Your task to perform on an android device: turn off translation in the chrome app Image 0: 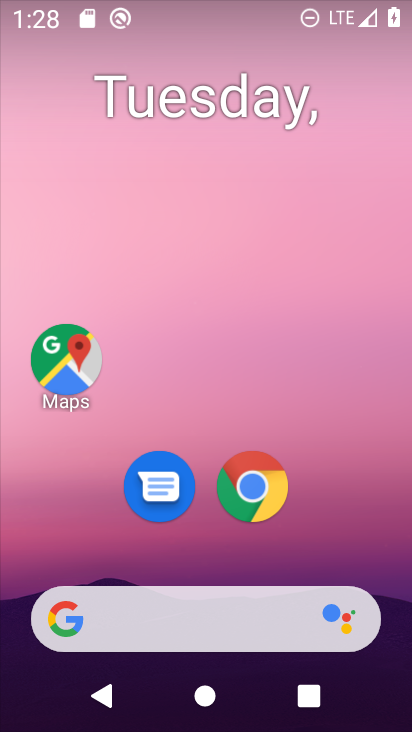
Step 0: drag from (248, 549) to (218, 188)
Your task to perform on an android device: turn off translation in the chrome app Image 1: 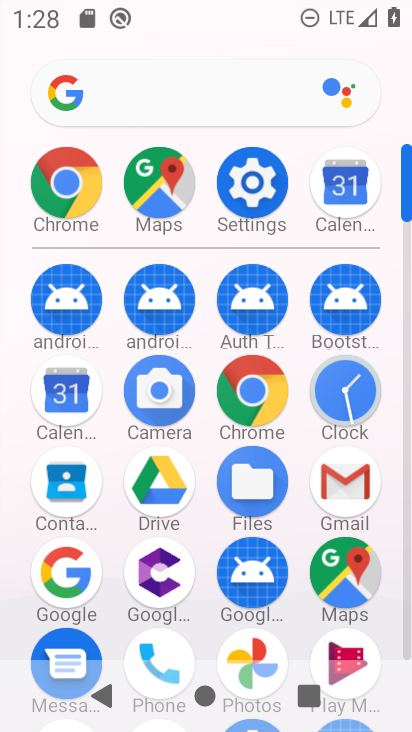
Step 1: click (245, 398)
Your task to perform on an android device: turn off translation in the chrome app Image 2: 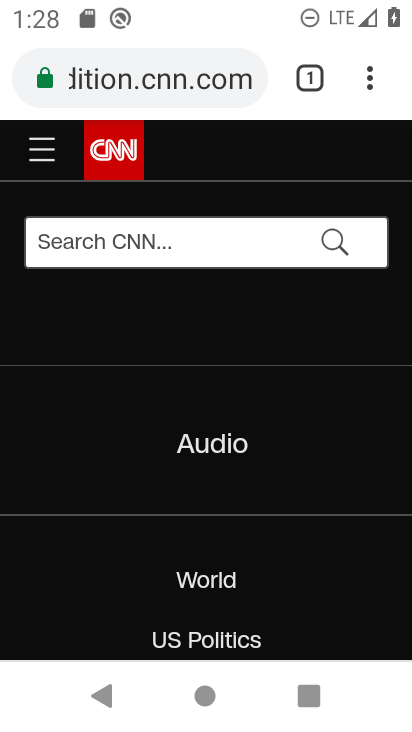
Step 2: click (365, 90)
Your task to perform on an android device: turn off translation in the chrome app Image 3: 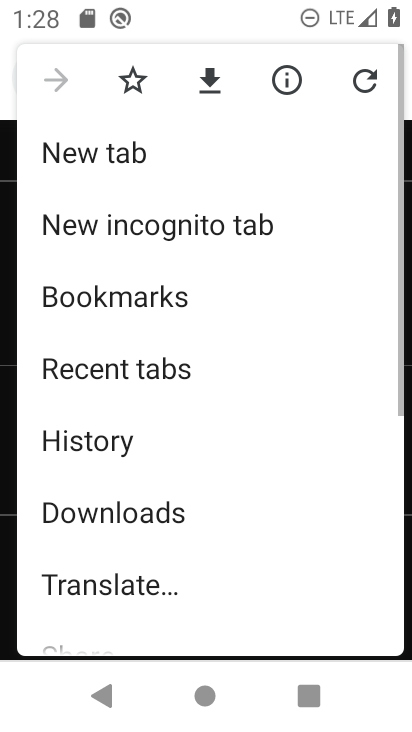
Step 3: drag from (160, 532) to (176, 133)
Your task to perform on an android device: turn off translation in the chrome app Image 4: 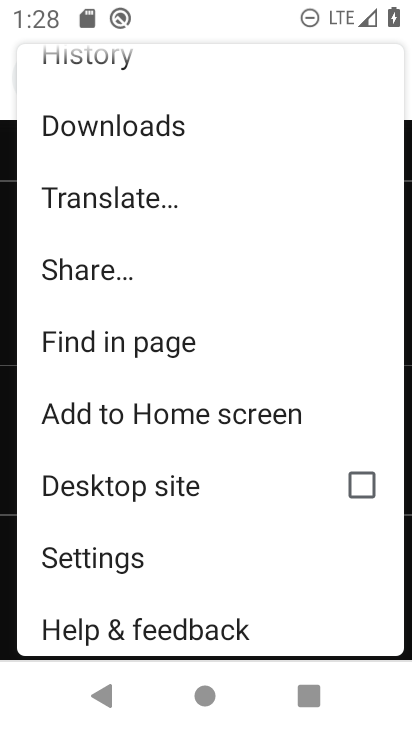
Step 4: click (143, 561)
Your task to perform on an android device: turn off translation in the chrome app Image 5: 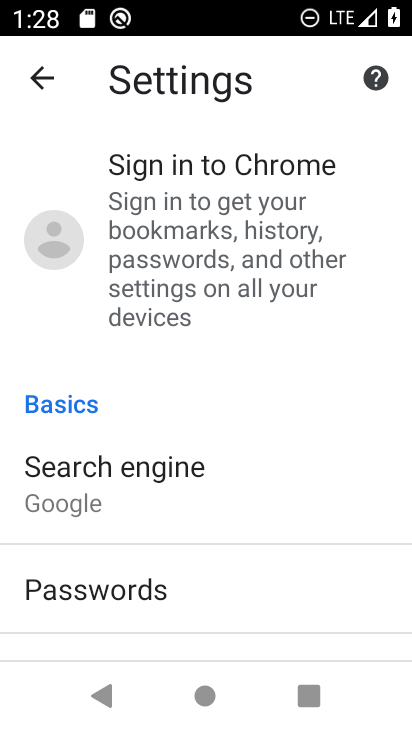
Step 5: drag from (192, 525) to (210, 127)
Your task to perform on an android device: turn off translation in the chrome app Image 6: 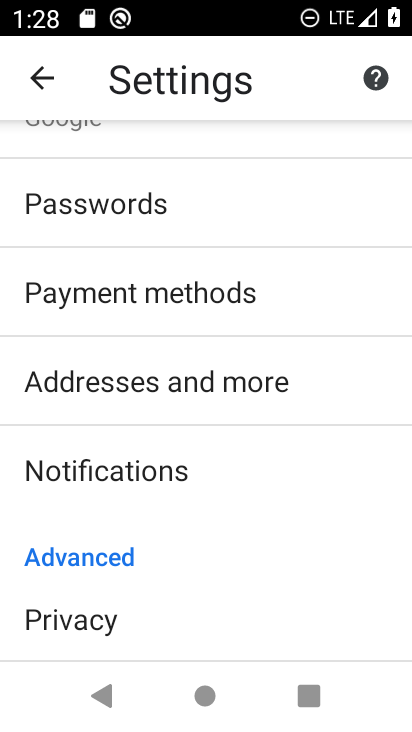
Step 6: drag from (212, 538) to (282, 57)
Your task to perform on an android device: turn off translation in the chrome app Image 7: 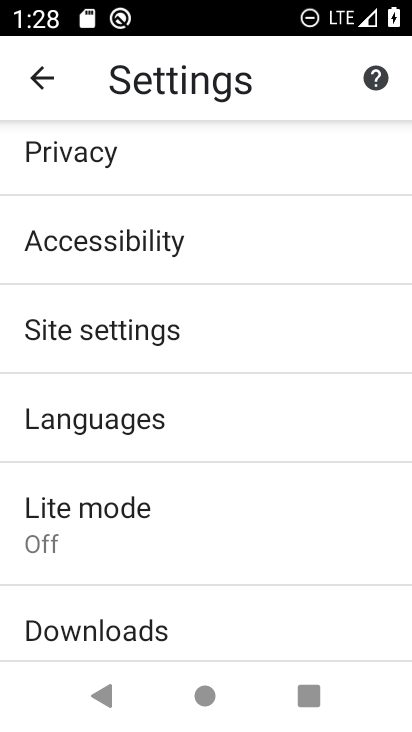
Step 7: click (190, 419)
Your task to perform on an android device: turn off translation in the chrome app Image 8: 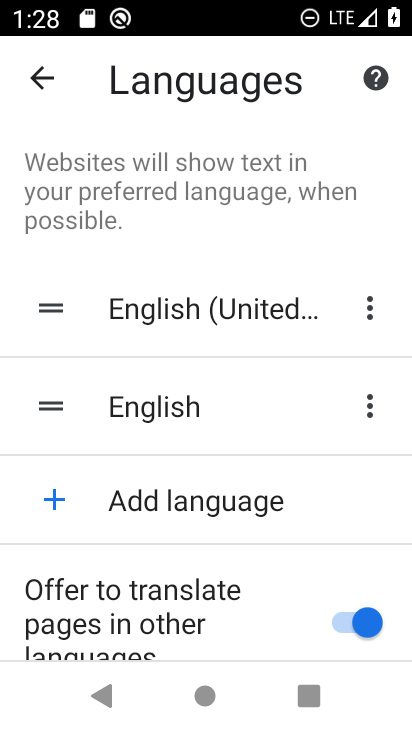
Step 8: click (352, 623)
Your task to perform on an android device: turn off translation in the chrome app Image 9: 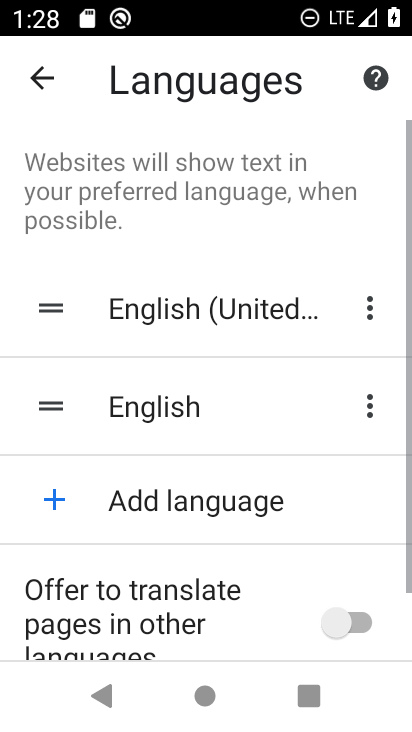
Step 9: task complete